Your task to perform on an android device: all mails in gmail Image 0: 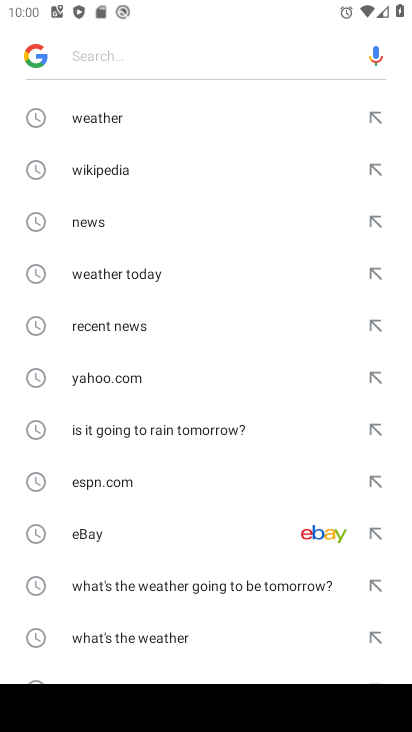
Step 0: press home button
Your task to perform on an android device: all mails in gmail Image 1: 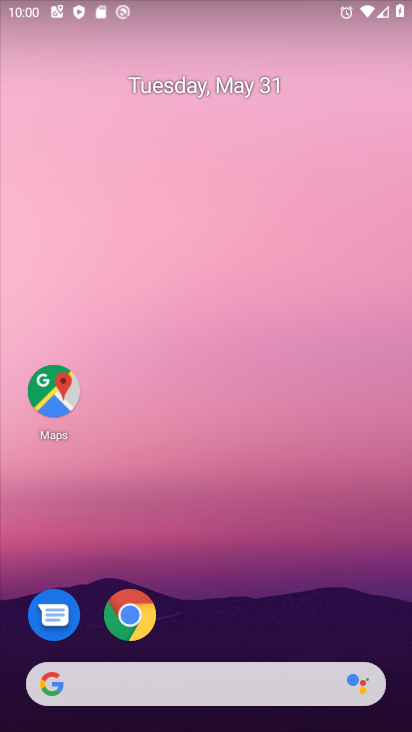
Step 1: drag from (372, 549) to (393, 93)
Your task to perform on an android device: all mails in gmail Image 2: 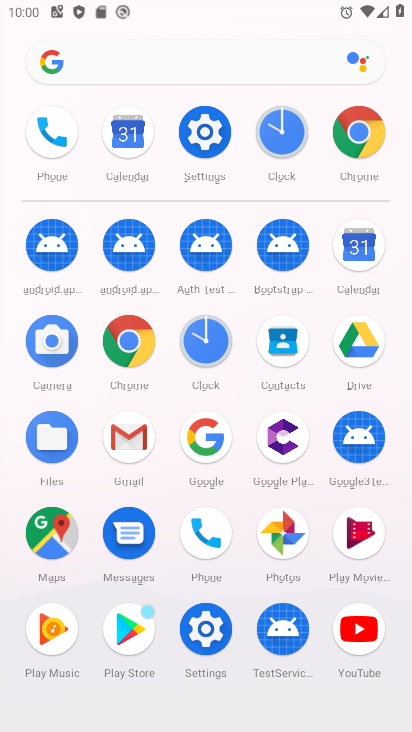
Step 2: click (122, 453)
Your task to perform on an android device: all mails in gmail Image 3: 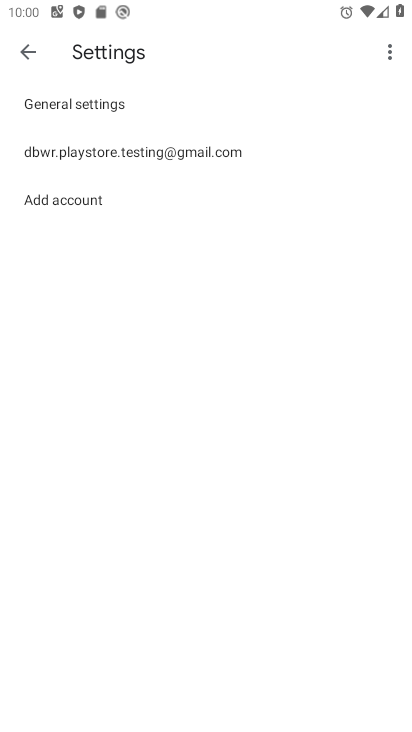
Step 3: click (31, 41)
Your task to perform on an android device: all mails in gmail Image 4: 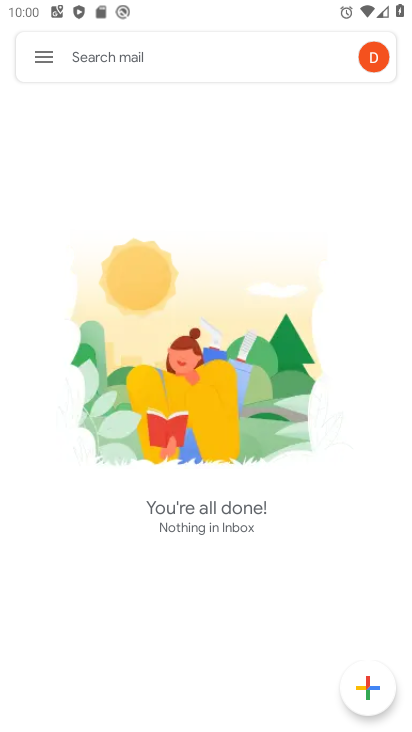
Step 4: click (38, 57)
Your task to perform on an android device: all mails in gmail Image 5: 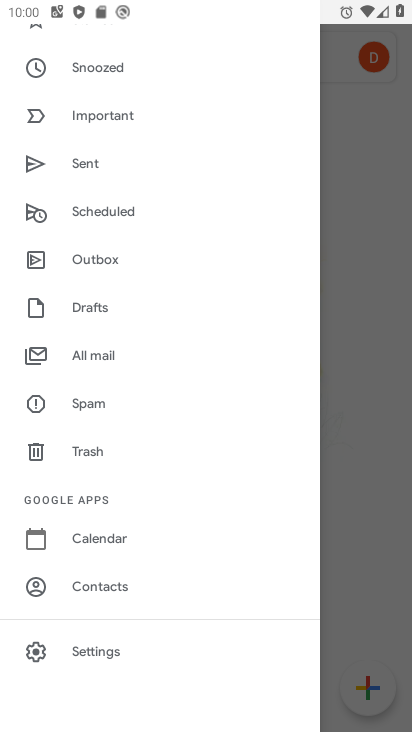
Step 5: click (129, 349)
Your task to perform on an android device: all mails in gmail Image 6: 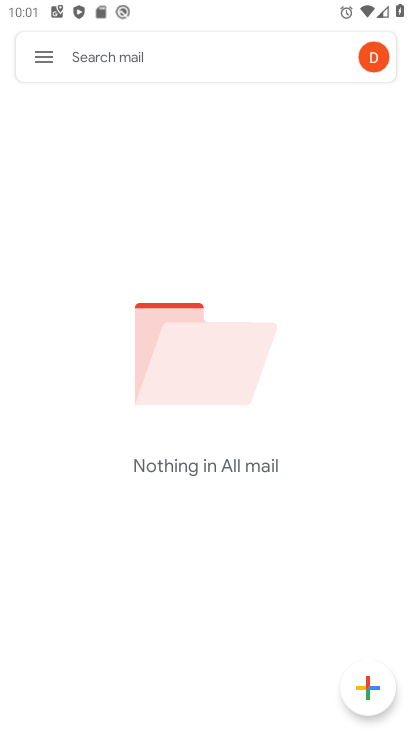
Step 6: task complete